Your task to perform on an android device: Open Yahoo.com Image 0: 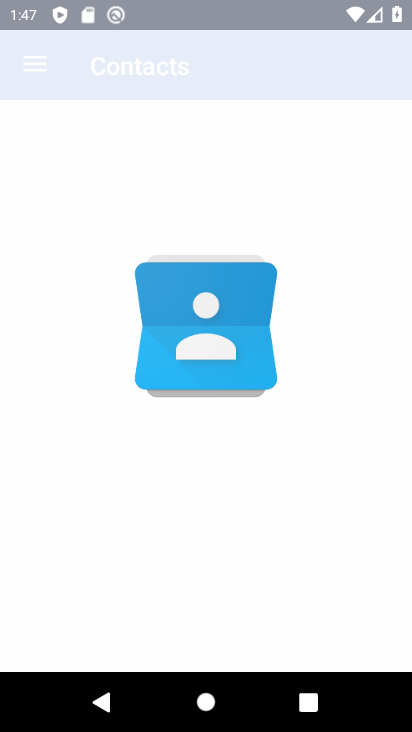
Step 0: drag from (199, 600) to (266, 119)
Your task to perform on an android device: Open Yahoo.com Image 1: 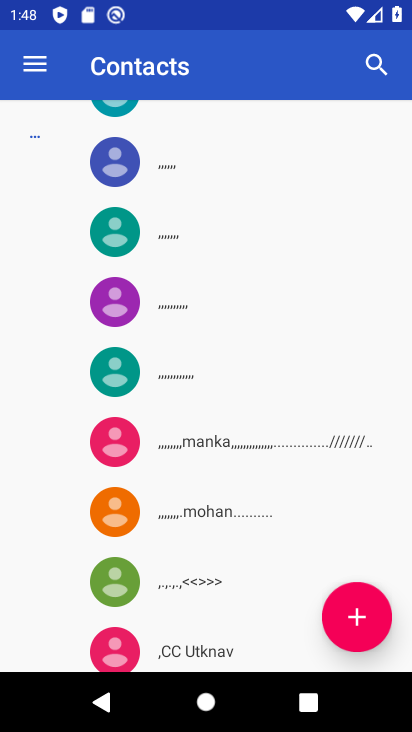
Step 1: press home button
Your task to perform on an android device: Open Yahoo.com Image 2: 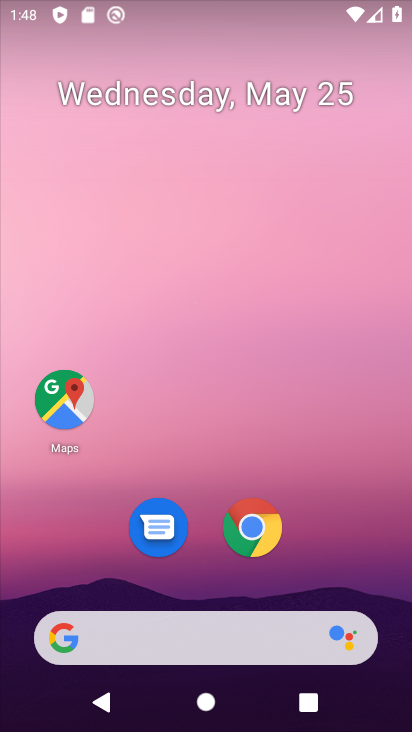
Step 2: drag from (221, 486) to (284, 182)
Your task to perform on an android device: Open Yahoo.com Image 3: 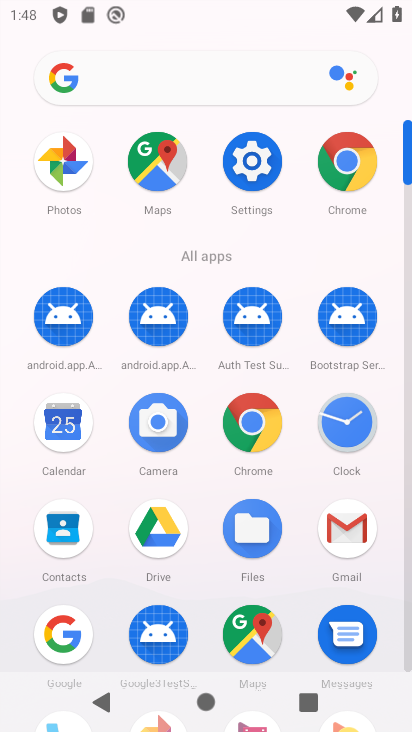
Step 3: click (208, 89)
Your task to perform on an android device: Open Yahoo.com Image 4: 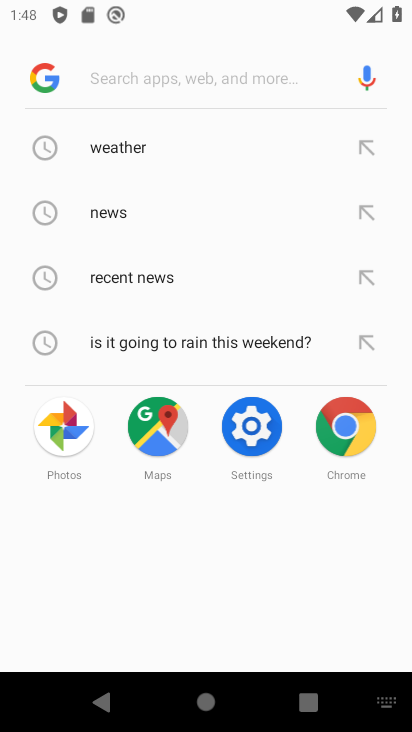
Step 4: type "Yahoo.com"
Your task to perform on an android device: Open Yahoo.com Image 5: 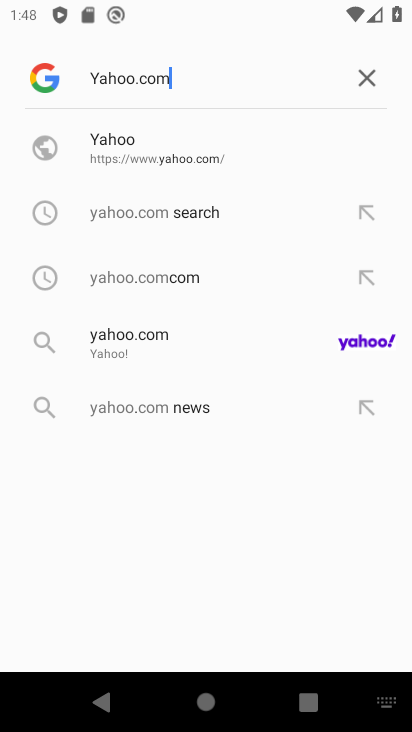
Step 5: click (150, 148)
Your task to perform on an android device: Open Yahoo.com Image 6: 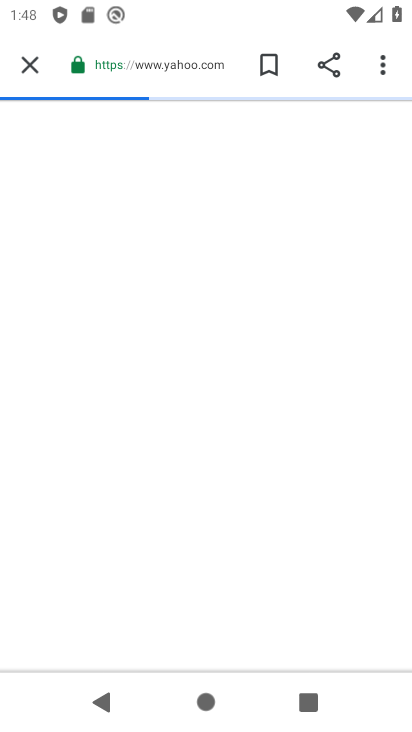
Step 6: task complete